Your task to perform on an android device: Search for "beats solo 3" on newegg, select the first entry, add it to the cart, then select checkout. Image 0: 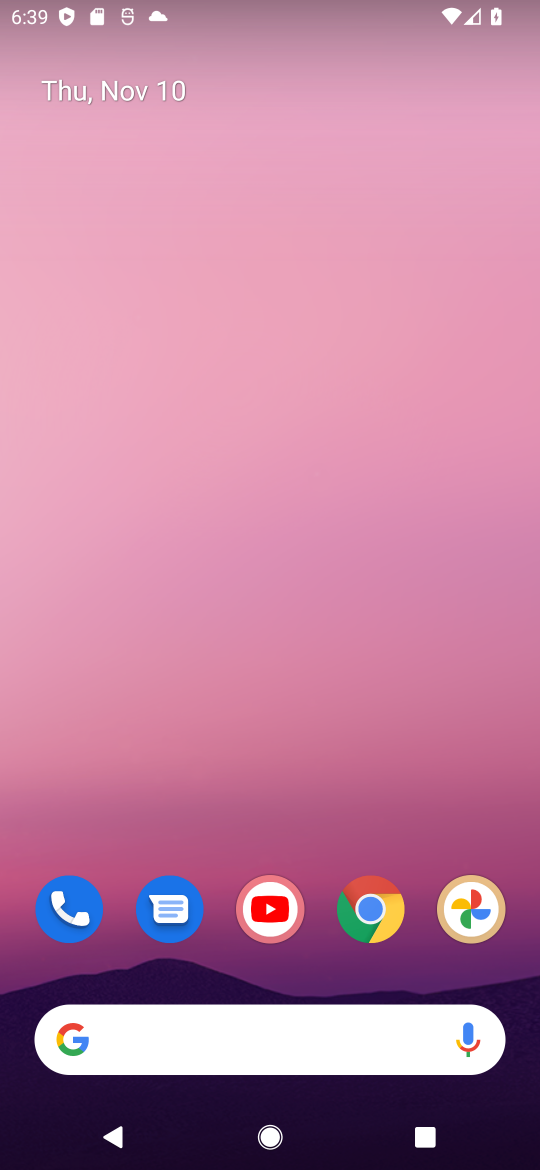
Step 0: drag from (207, 1046) to (206, 46)
Your task to perform on an android device: Search for "beats solo 3" on newegg, select the first entry, add it to the cart, then select checkout. Image 1: 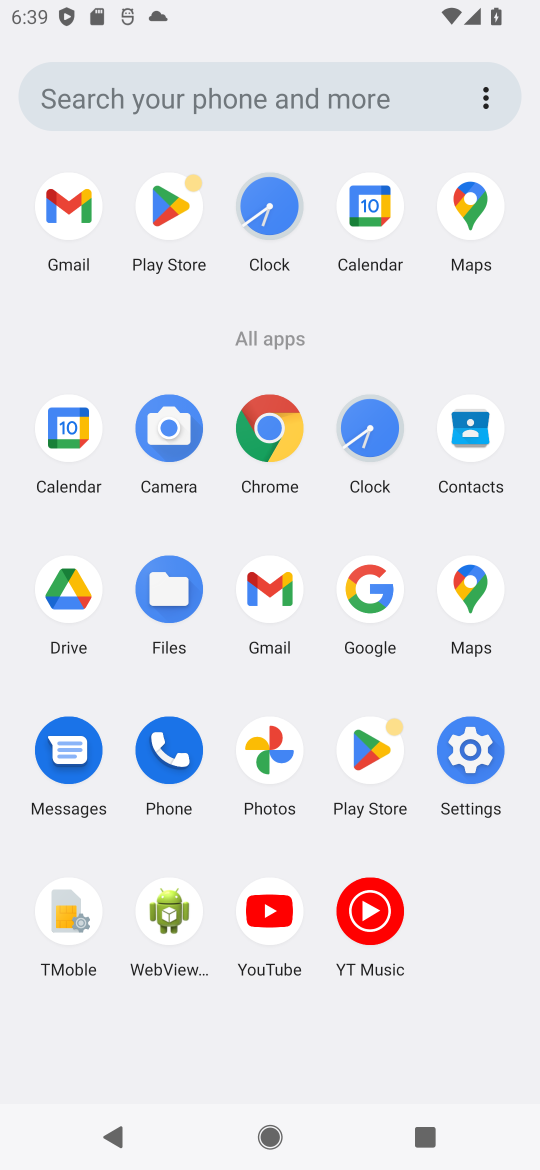
Step 1: click (383, 578)
Your task to perform on an android device: Search for "beats solo 3" on newegg, select the first entry, add it to the cart, then select checkout. Image 2: 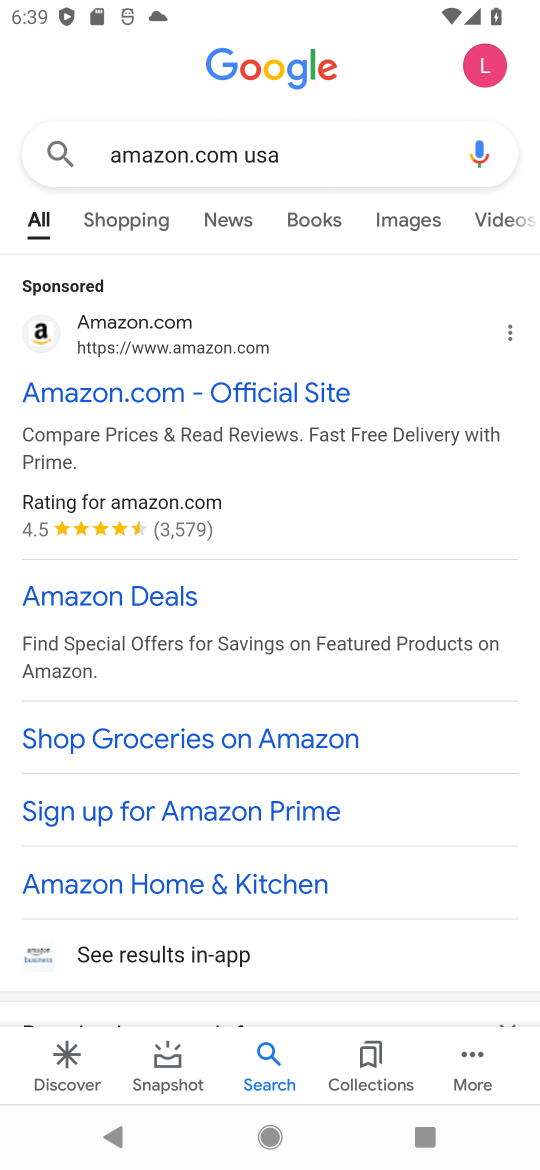
Step 2: click (289, 145)
Your task to perform on an android device: Search for "beats solo 3" on newegg, select the first entry, add it to the cart, then select checkout. Image 3: 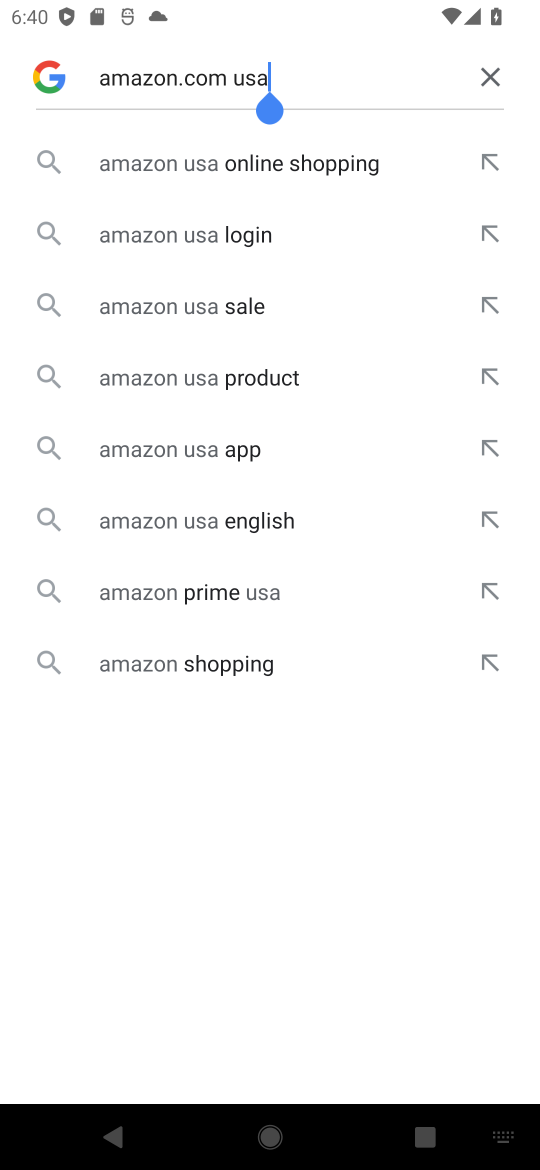
Step 3: click (482, 82)
Your task to perform on an android device: Search for "beats solo 3" on newegg, select the first entry, add it to the cart, then select checkout. Image 4: 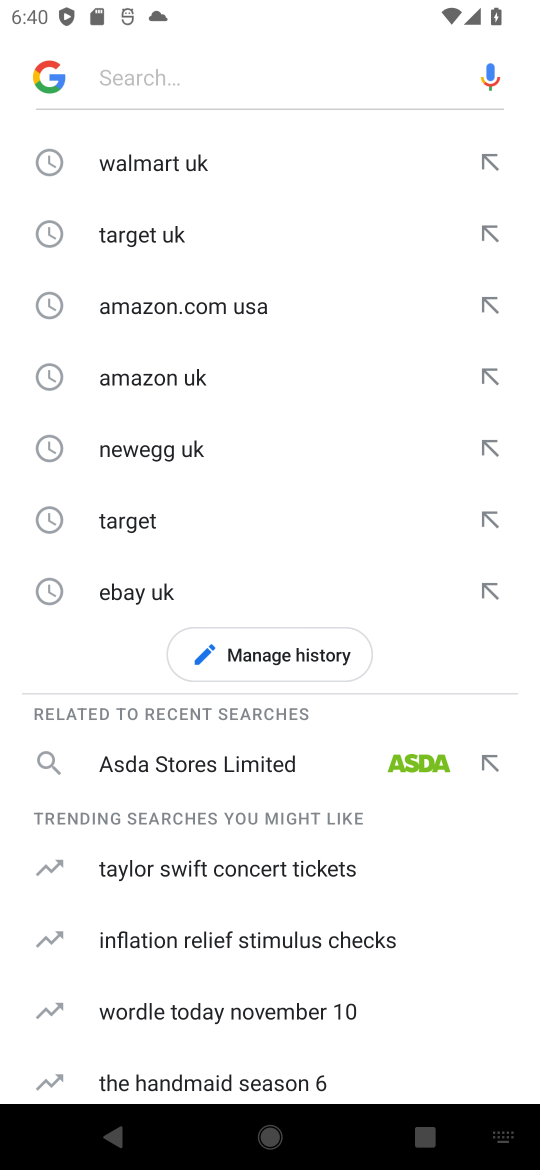
Step 4: click (181, 79)
Your task to perform on an android device: Search for "beats solo 3" on newegg, select the first entry, add it to the cart, then select checkout. Image 5: 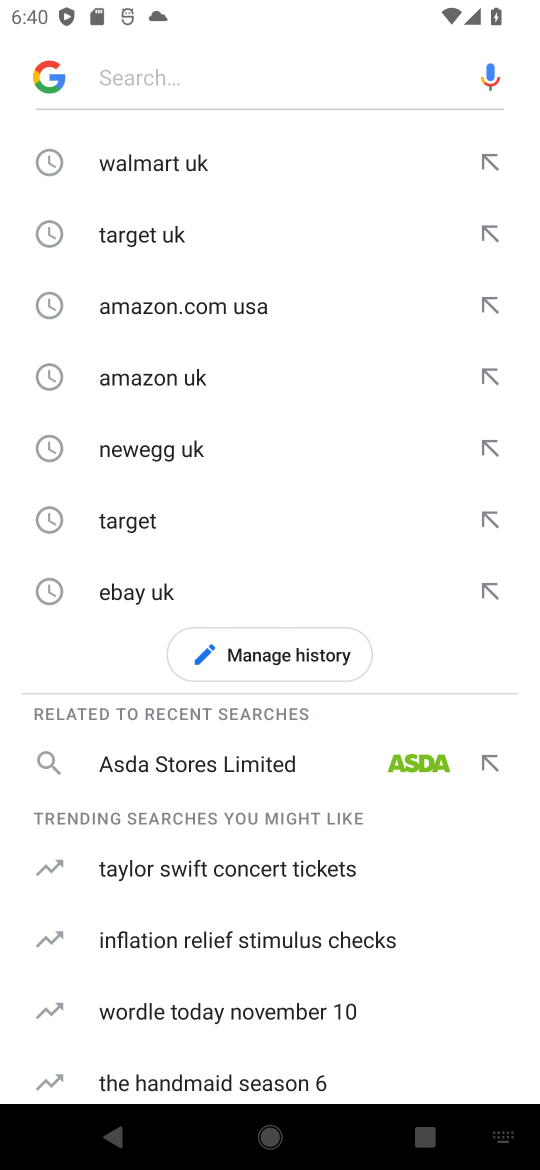
Step 5: type "newegg "
Your task to perform on an android device: Search for "beats solo 3" on newegg, select the first entry, add it to the cart, then select checkout. Image 6: 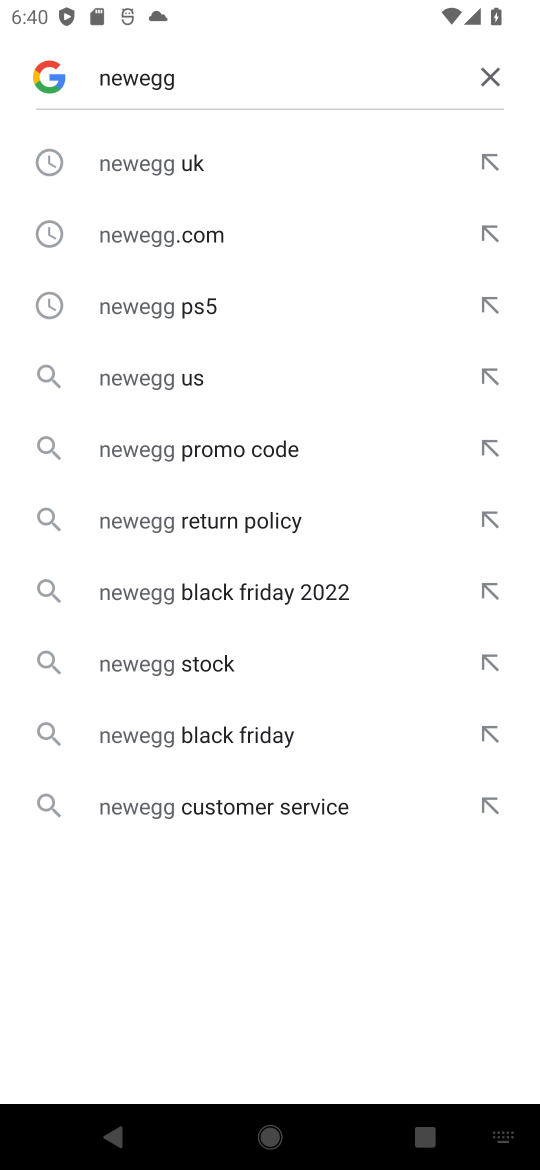
Step 6: click (195, 170)
Your task to perform on an android device: Search for "beats solo 3" on newegg, select the first entry, add it to the cart, then select checkout. Image 7: 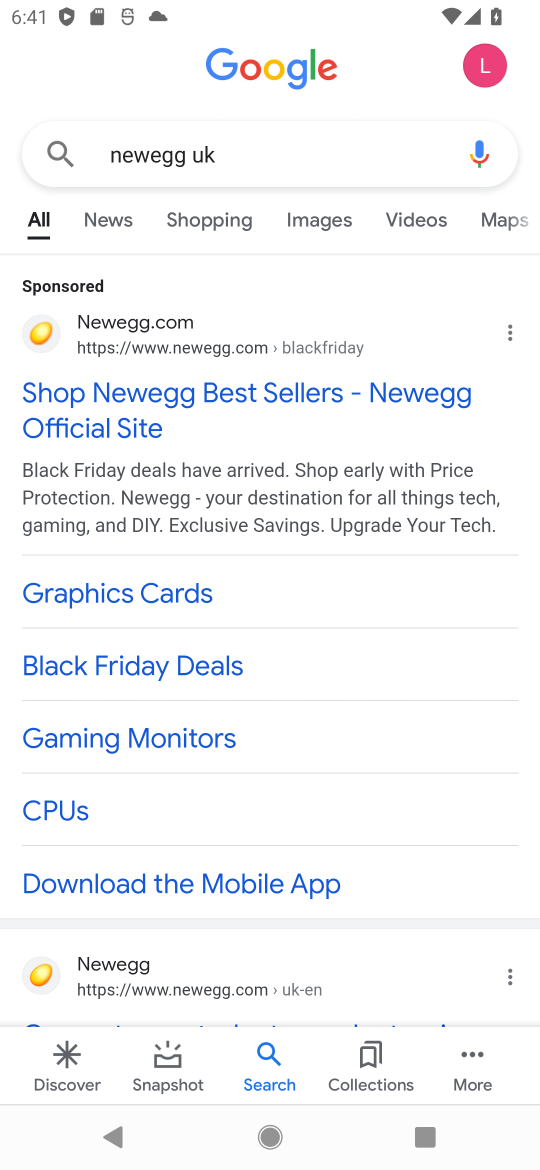
Step 7: click (28, 322)
Your task to perform on an android device: Search for "beats solo 3" on newegg, select the first entry, add it to the cart, then select checkout. Image 8: 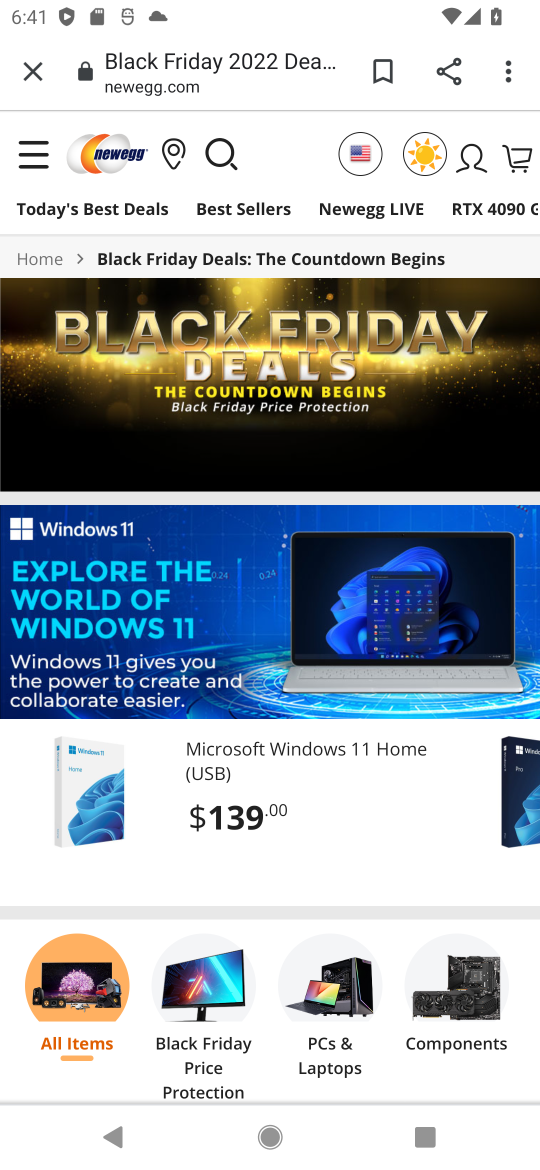
Step 8: click (204, 152)
Your task to perform on an android device: Search for "beats solo 3" on newegg, select the first entry, add it to the cart, then select checkout. Image 9: 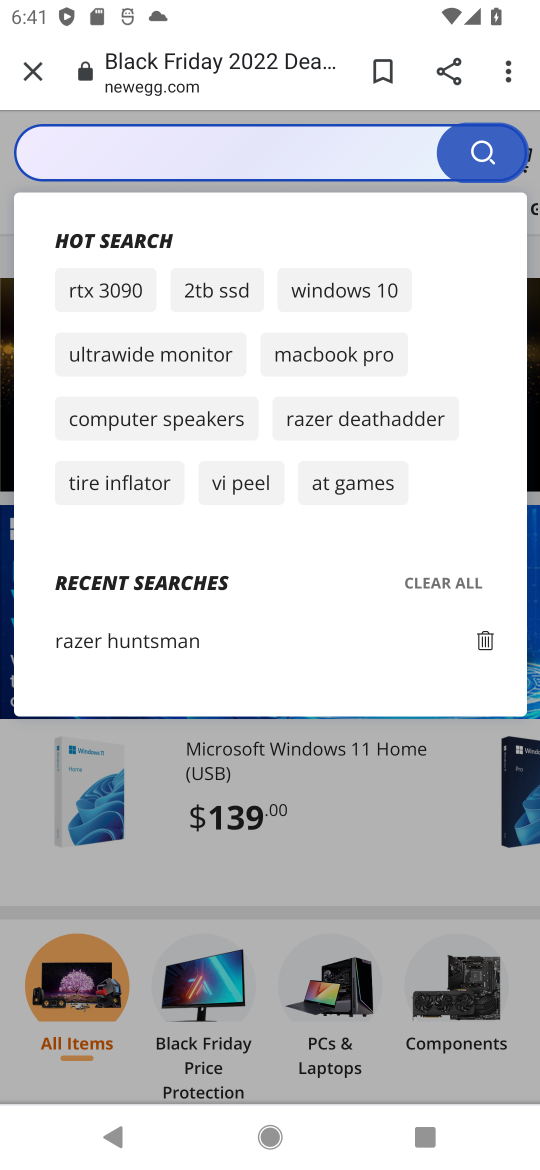
Step 9: click (182, 137)
Your task to perform on an android device: Search for "beats solo 3" on newegg, select the first entry, add it to the cart, then select checkout. Image 10: 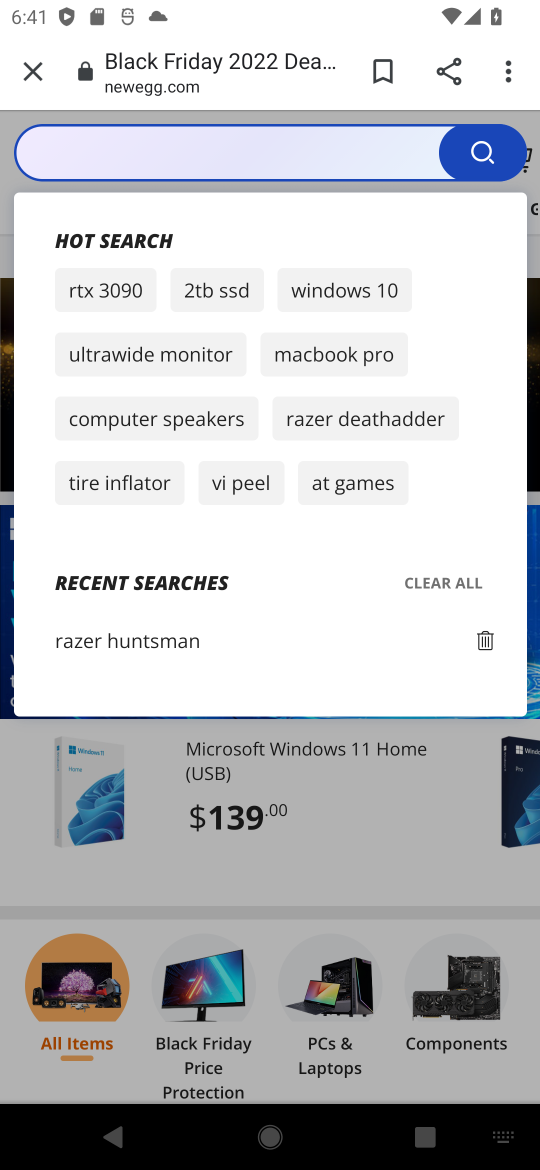
Step 10: type "beats solo 3 "
Your task to perform on an android device: Search for "beats solo 3" on newegg, select the first entry, add it to the cart, then select checkout. Image 11: 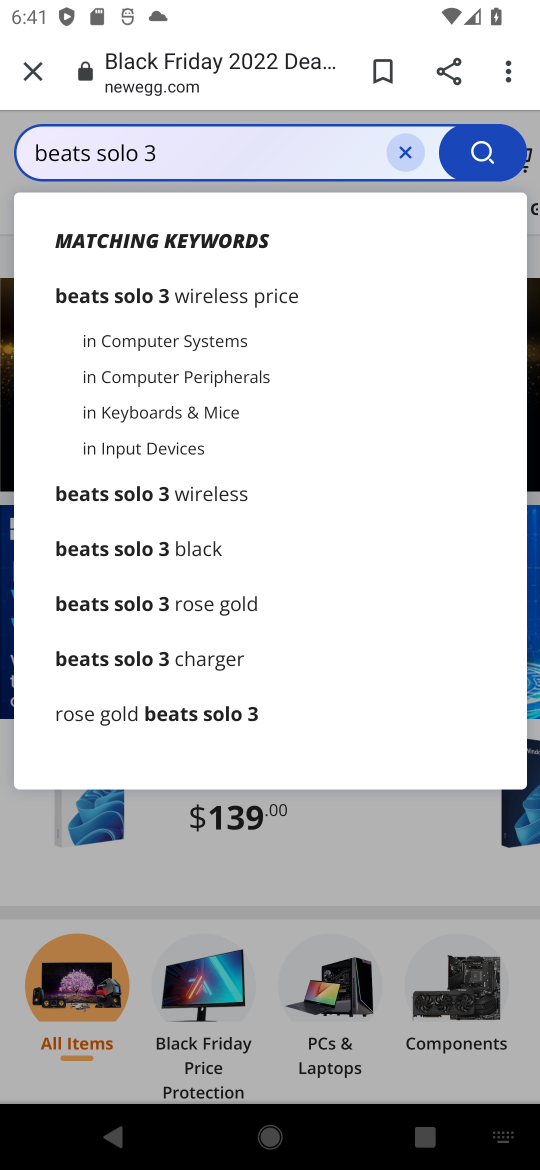
Step 11: click (142, 294)
Your task to perform on an android device: Search for "beats solo 3" on newegg, select the first entry, add it to the cart, then select checkout. Image 12: 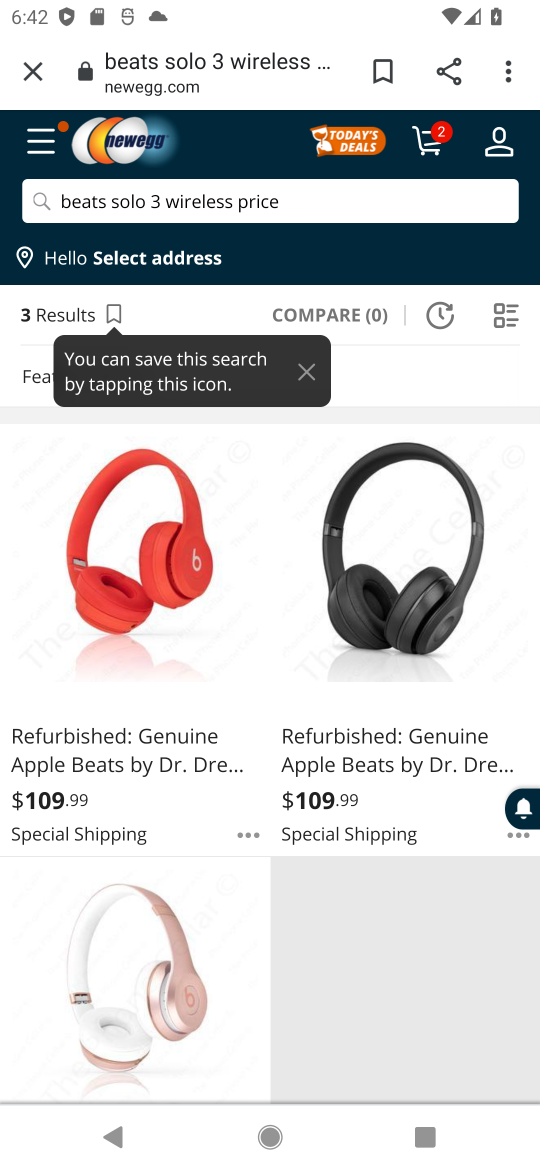
Step 12: drag from (107, 785) to (159, 403)
Your task to perform on an android device: Search for "beats solo 3" on newegg, select the first entry, add it to the cart, then select checkout. Image 13: 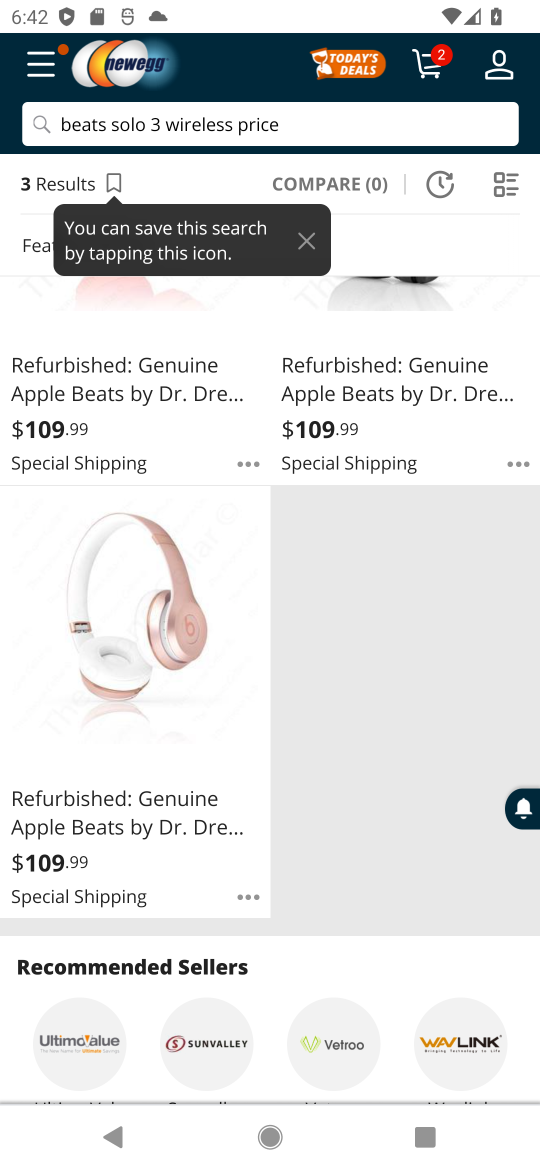
Step 13: click (106, 624)
Your task to perform on an android device: Search for "beats solo 3" on newegg, select the first entry, add it to the cart, then select checkout. Image 14: 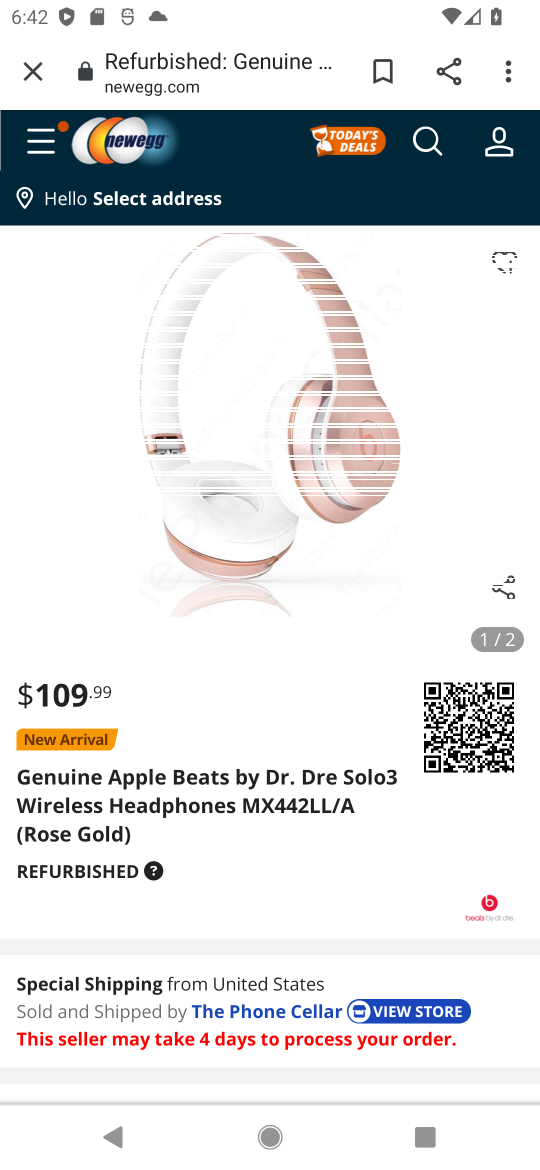
Step 14: drag from (216, 888) to (293, 534)
Your task to perform on an android device: Search for "beats solo 3" on newegg, select the first entry, add it to the cart, then select checkout. Image 15: 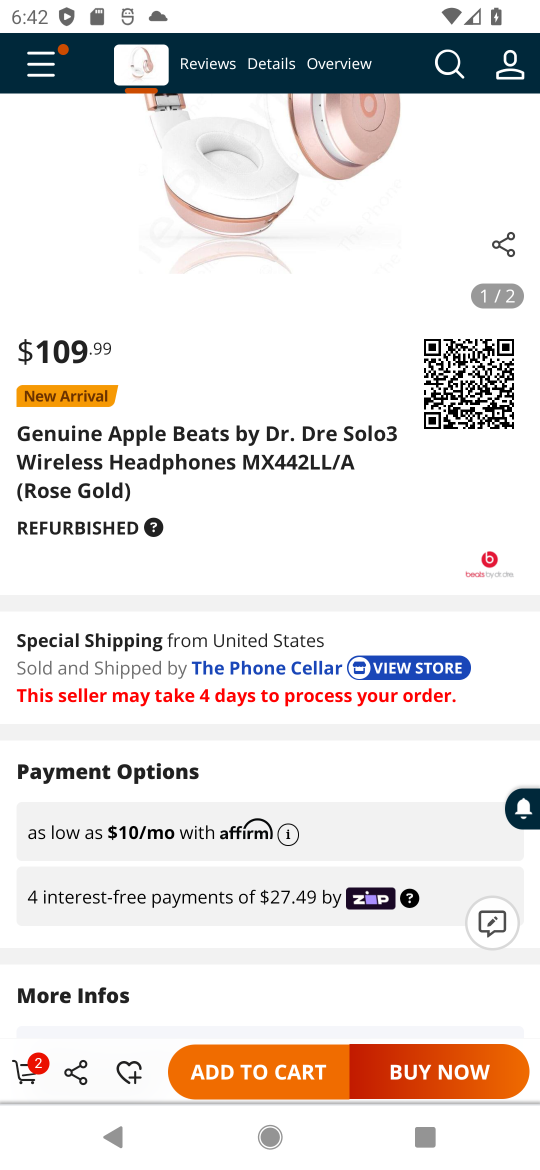
Step 15: click (246, 1073)
Your task to perform on an android device: Search for "beats solo 3" on newegg, select the first entry, add it to the cart, then select checkout. Image 16: 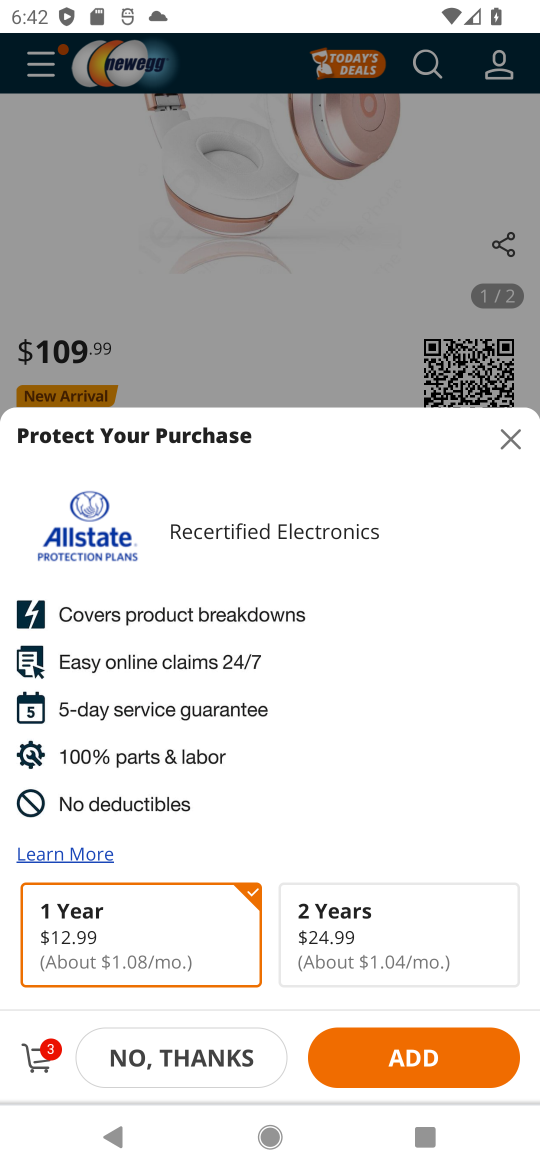
Step 16: task complete